Your task to perform on an android device: change the upload size in google photos Image 0: 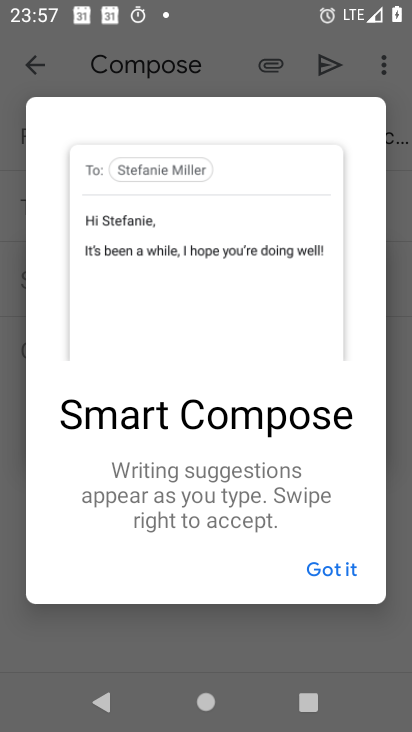
Step 0: press home button
Your task to perform on an android device: change the upload size in google photos Image 1: 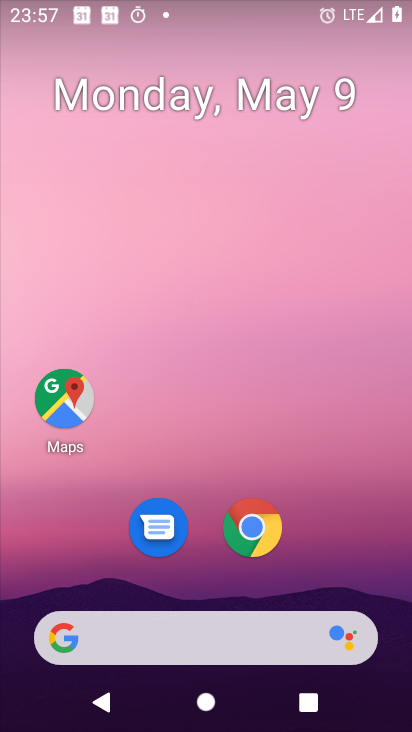
Step 1: drag from (191, 564) to (224, 253)
Your task to perform on an android device: change the upload size in google photos Image 2: 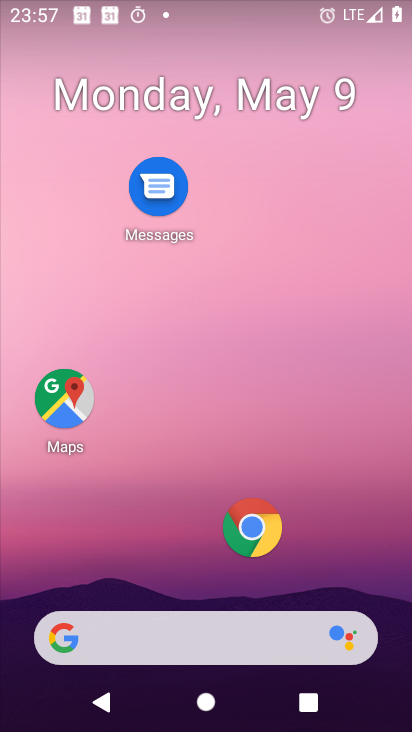
Step 2: drag from (188, 561) to (181, 132)
Your task to perform on an android device: change the upload size in google photos Image 3: 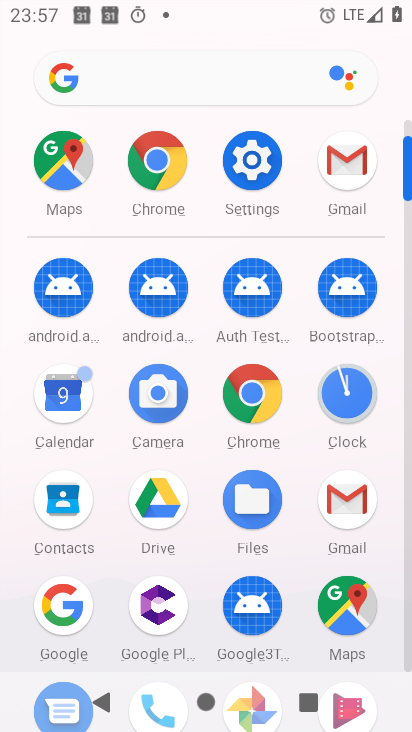
Step 3: drag from (208, 573) to (210, 280)
Your task to perform on an android device: change the upload size in google photos Image 4: 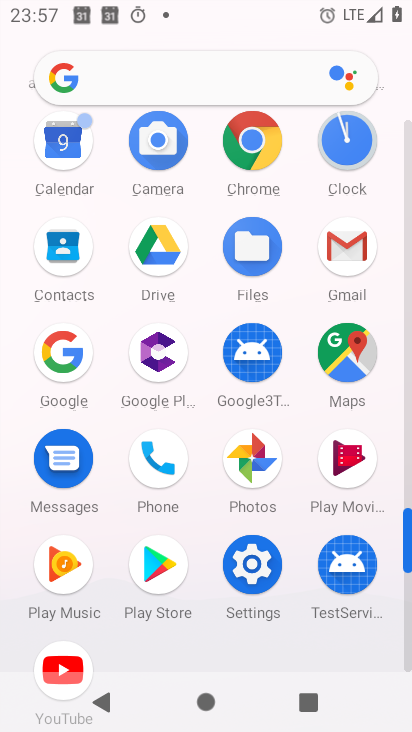
Step 4: click (255, 456)
Your task to perform on an android device: change the upload size in google photos Image 5: 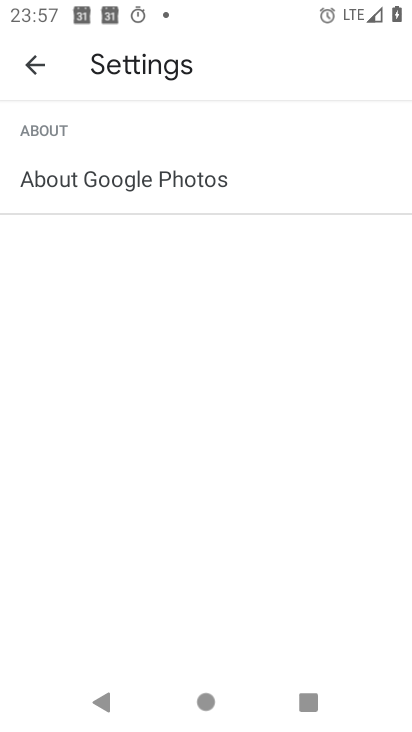
Step 5: press back button
Your task to perform on an android device: change the upload size in google photos Image 6: 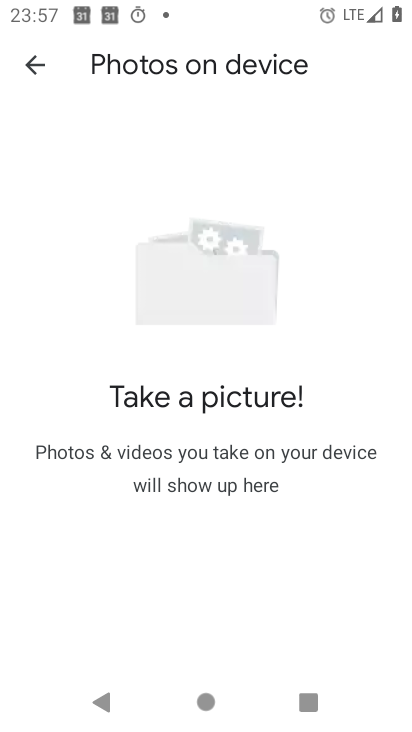
Step 6: press back button
Your task to perform on an android device: change the upload size in google photos Image 7: 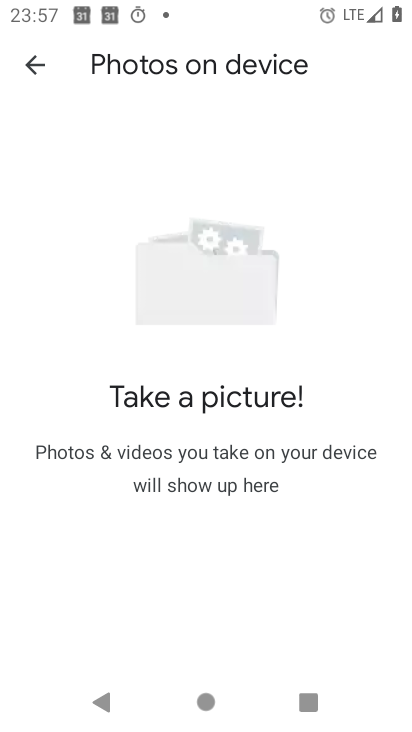
Step 7: press back button
Your task to perform on an android device: change the upload size in google photos Image 8: 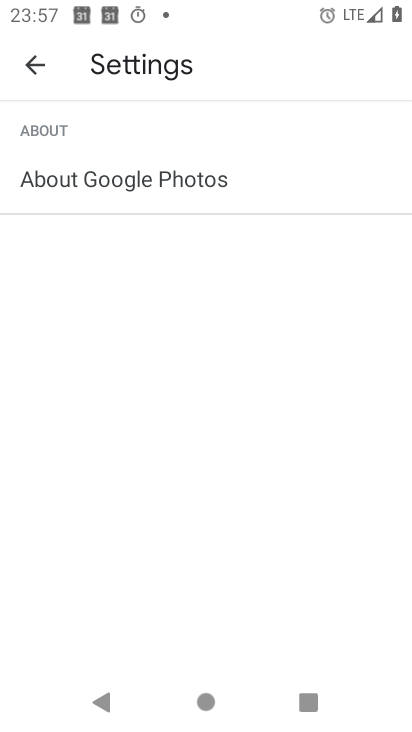
Step 8: press back button
Your task to perform on an android device: change the upload size in google photos Image 9: 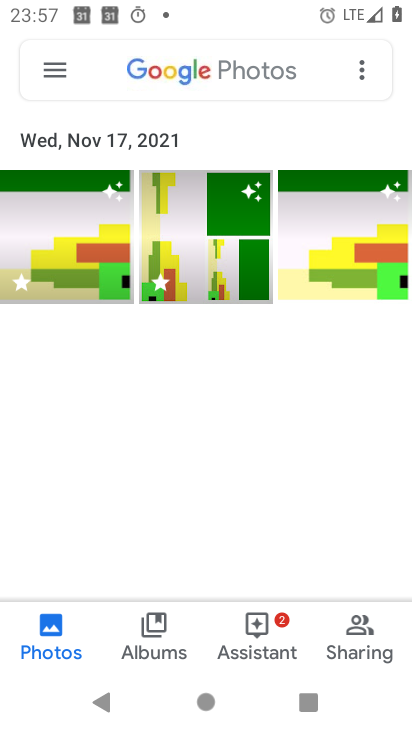
Step 9: click (62, 74)
Your task to perform on an android device: change the upload size in google photos Image 10: 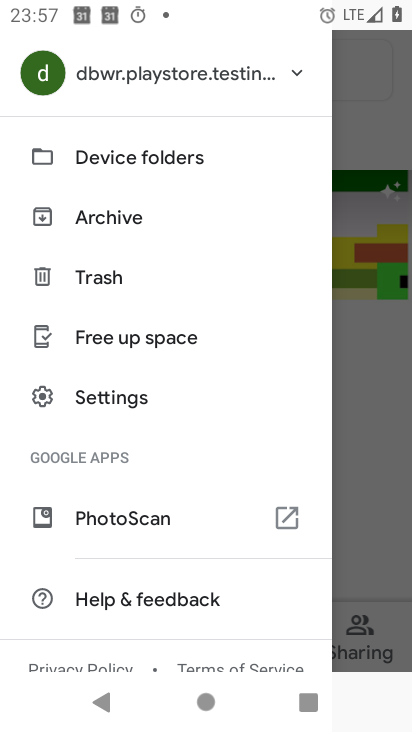
Step 10: click (119, 393)
Your task to perform on an android device: change the upload size in google photos Image 11: 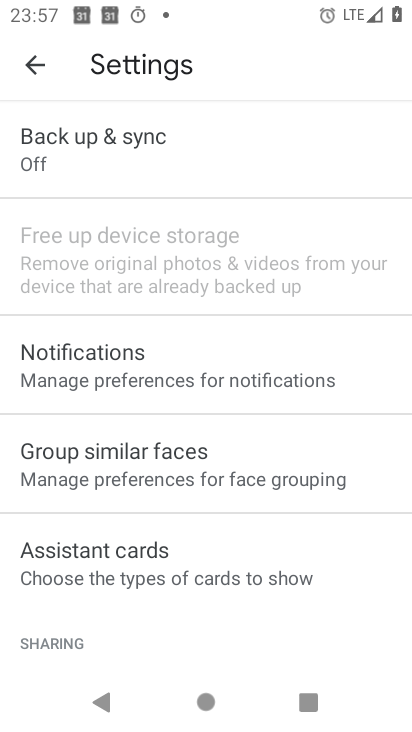
Step 11: drag from (188, 524) to (190, 98)
Your task to perform on an android device: change the upload size in google photos Image 12: 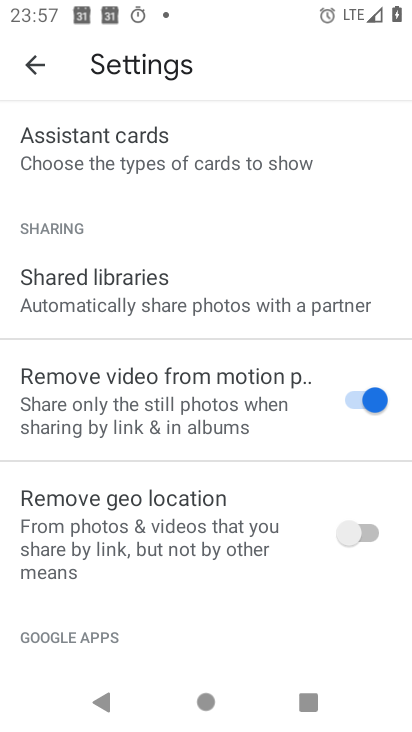
Step 12: drag from (138, 197) to (228, 594)
Your task to perform on an android device: change the upload size in google photos Image 13: 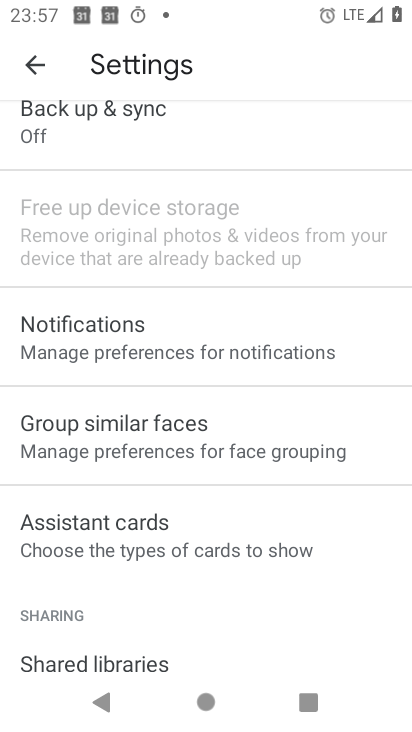
Step 13: click (122, 147)
Your task to perform on an android device: change the upload size in google photos Image 14: 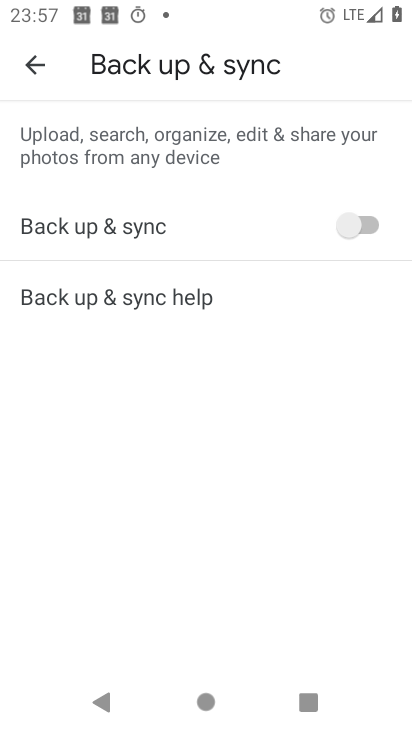
Step 14: click (339, 215)
Your task to perform on an android device: change the upload size in google photos Image 15: 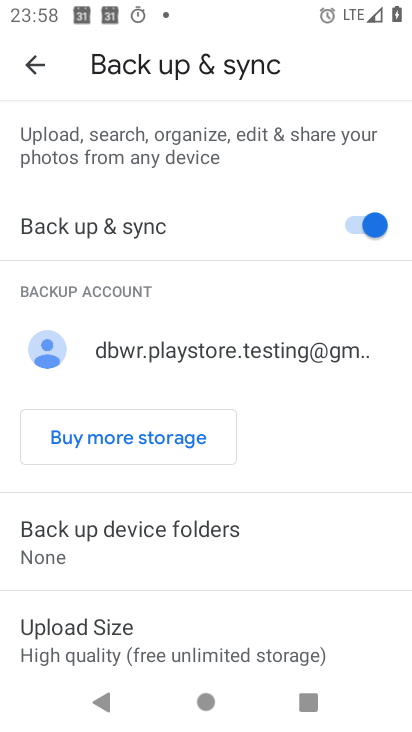
Step 15: click (183, 631)
Your task to perform on an android device: change the upload size in google photos Image 16: 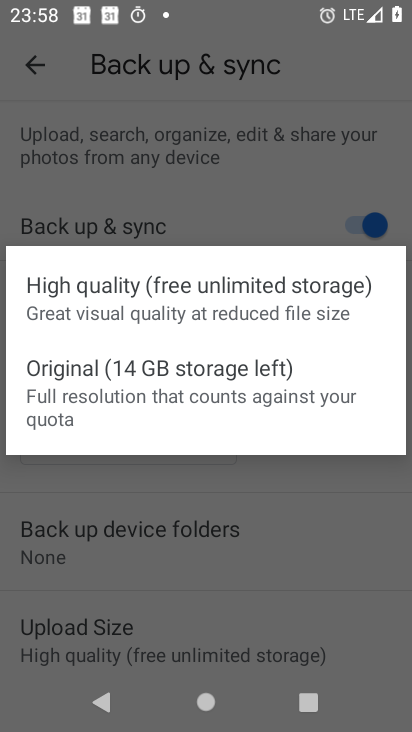
Step 16: click (134, 380)
Your task to perform on an android device: change the upload size in google photos Image 17: 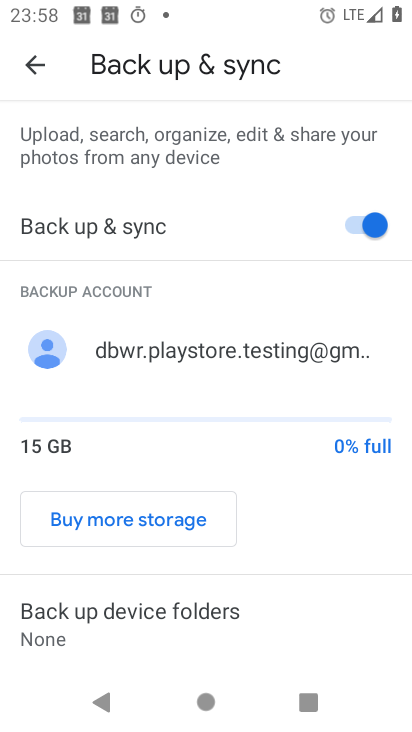
Step 17: task complete